Your task to perform on an android device: check battery use Image 0: 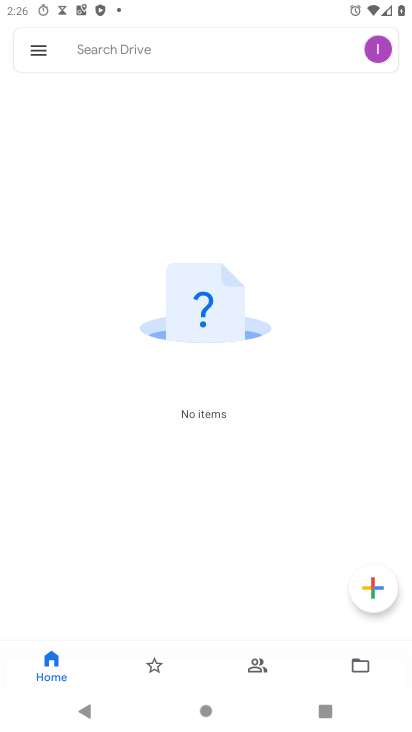
Step 0: press home button
Your task to perform on an android device: check battery use Image 1: 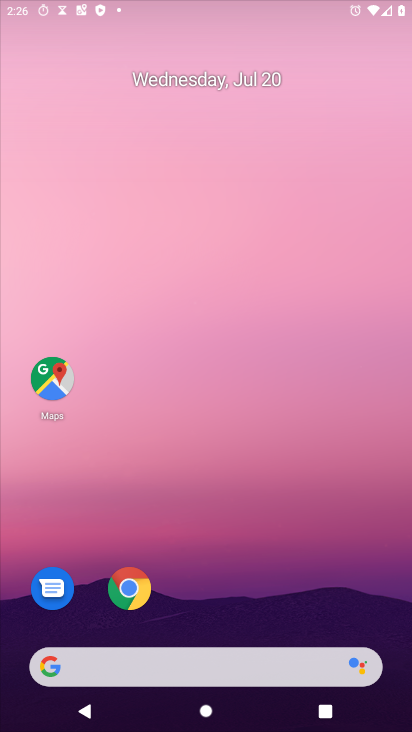
Step 1: drag from (274, 663) to (281, 38)
Your task to perform on an android device: check battery use Image 2: 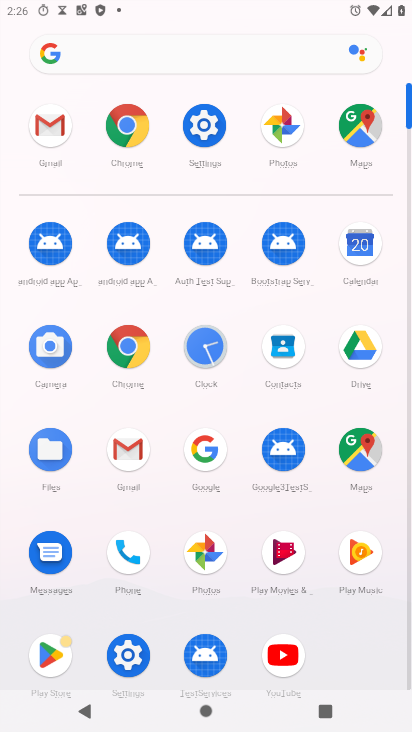
Step 2: click (214, 134)
Your task to perform on an android device: check battery use Image 3: 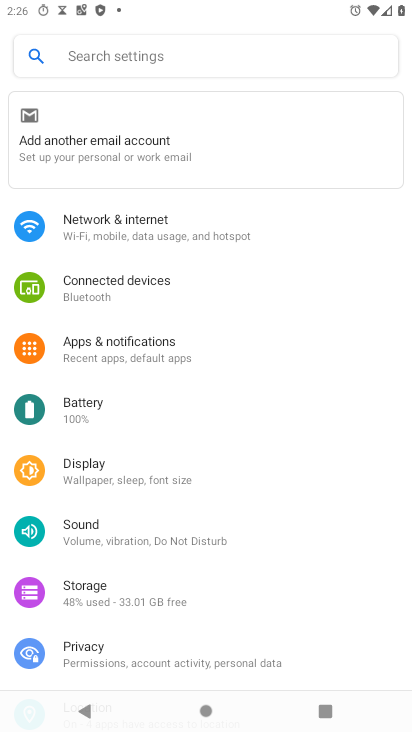
Step 3: click (97, 409)
Your task to perform on an android device: check battery use Image 4: 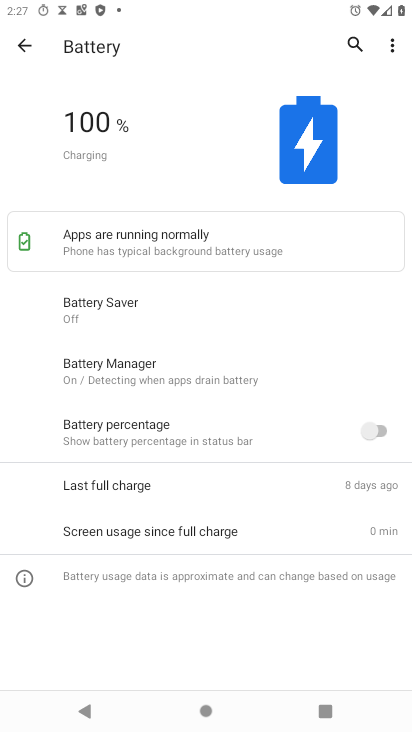
Step 4: task complete